Your task to perform on an android device: check data usage Image 0: 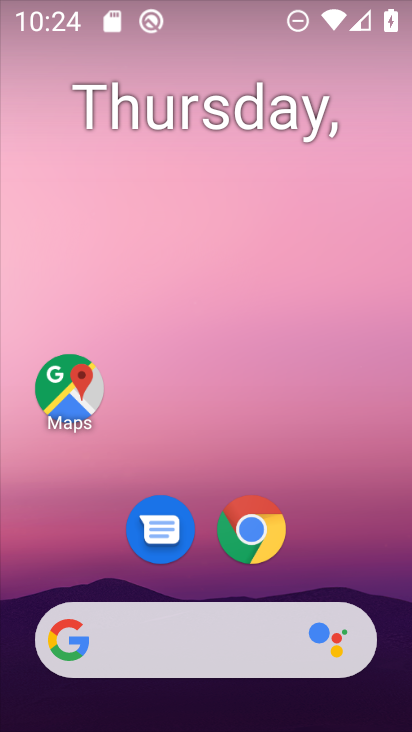
Step 0: drag from (330, 720) to (375, 13)
Your task to perform on an android device: check data usage Image 1: 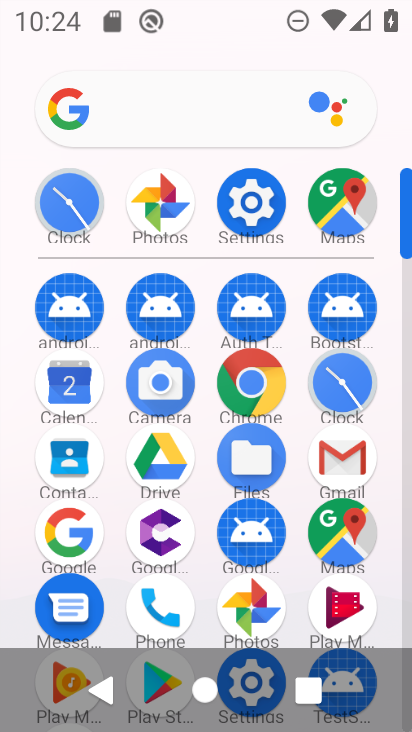
Step 1: click (253, 189)
Your task to perform on an android device: check data usage Image 2: 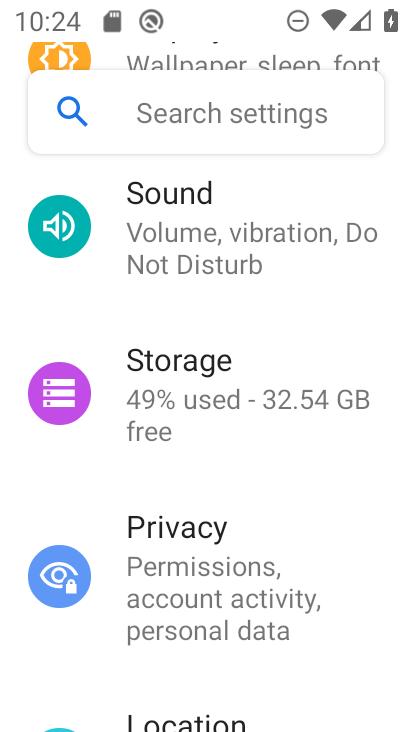
Step 2: drag from (319, 191) to (230, 709)
Your task to perform on an android device: check data usage Image 3: 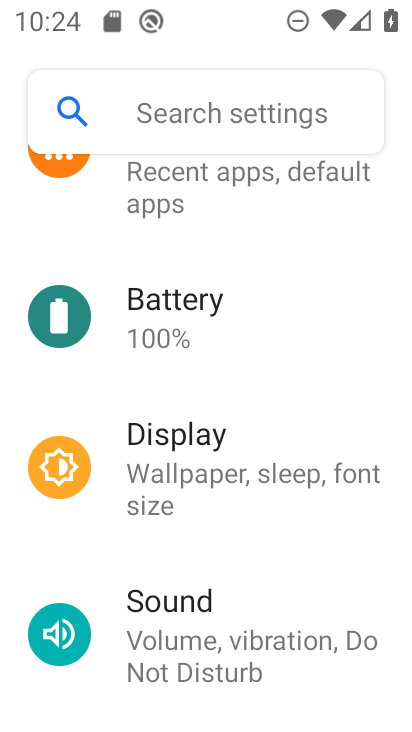
Step 3: drag from (289, 291) to (252, 718)
Your task to perform on an android device: check data usage Image 4: 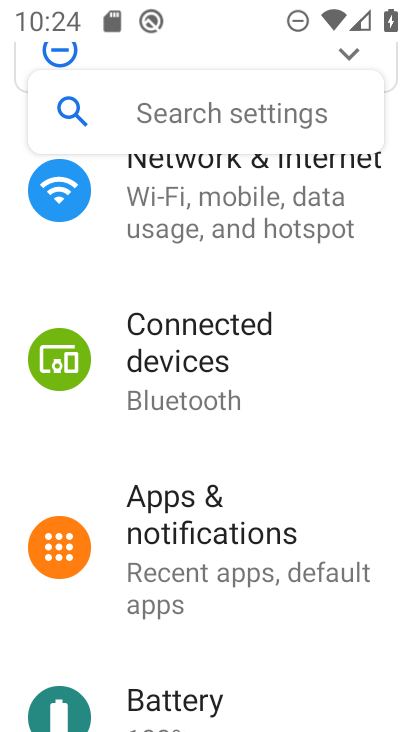
Step 4: click (302, 204)
Your task to perform on an android device: check data usage Image 5: 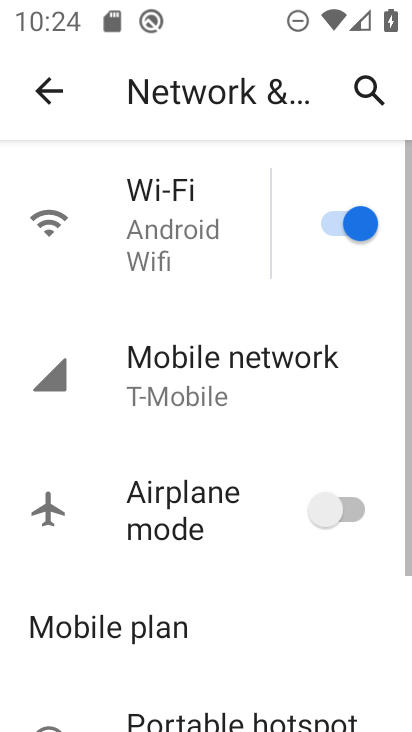
Step 5: click (226, 373)
Your task to perform on an android device: check data usage Image 6: 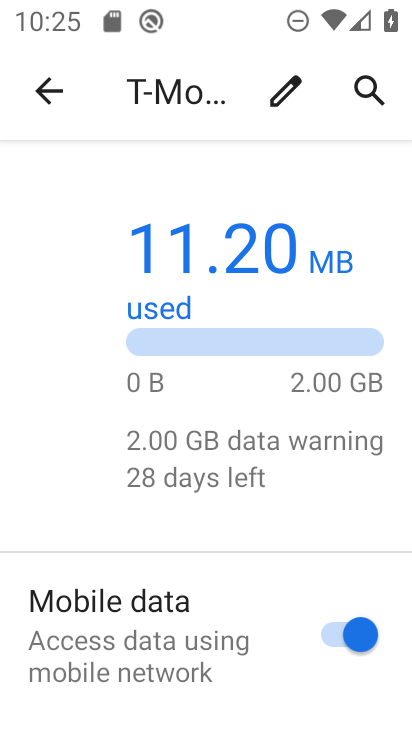
Step 6: task complete